Your task to perform on an android device: Show me productivity apps on the Play Store Image 0: 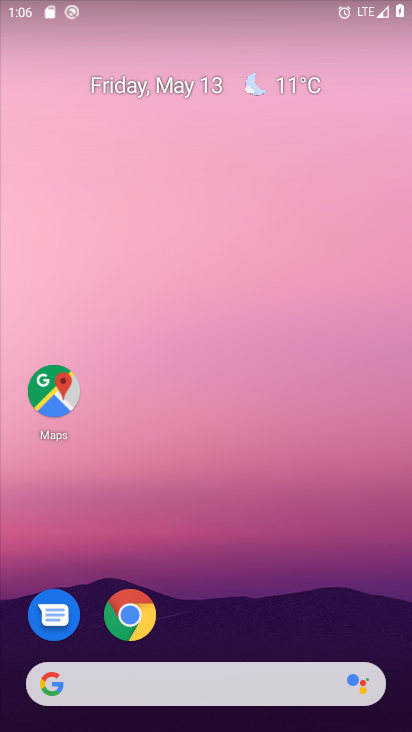
Step 0: drag from (276, 612) to (306, 47)
Your task to perform on an android device: Show me productivity apps on the Play Store Image 1: 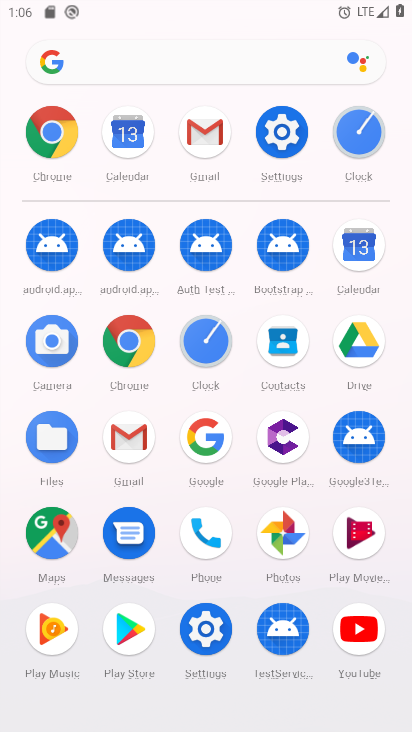
Step 1: click (131, 609)
Your task to perform on an android device: Show me productivity apps on the Play Store Image 2: 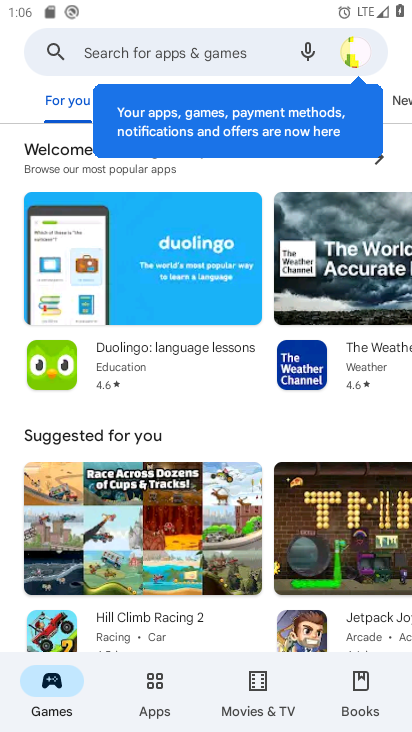
Step 2: click (150, 696)
Your task to perform on an android device: Show me productivity apps on the Play Store Image 3: 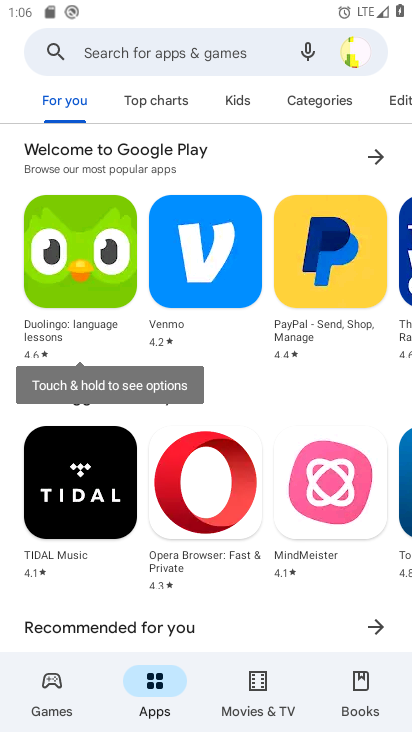
Step 3: click (343, 88)
Your task to perform on an android device: Show me productivity apps on the Play Store Image 4: 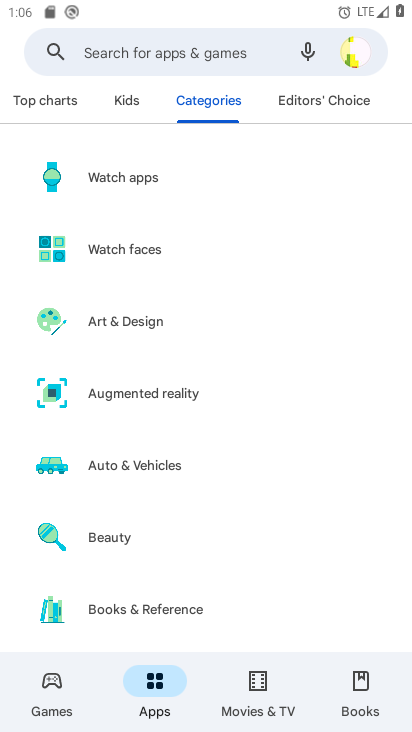
Step 4: drag from (248, 544) to (290, 0)
Your task to perform on an android device: Show me productivity apps on the Play Store Image 5: 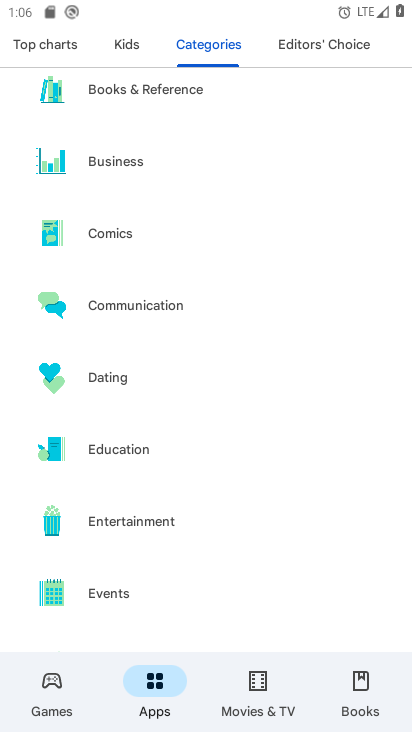
Step 5: drag from (217, 609) to (276, 0)
Your task to perform on an android device: Show me productivity apps on the Play Store Image 6: 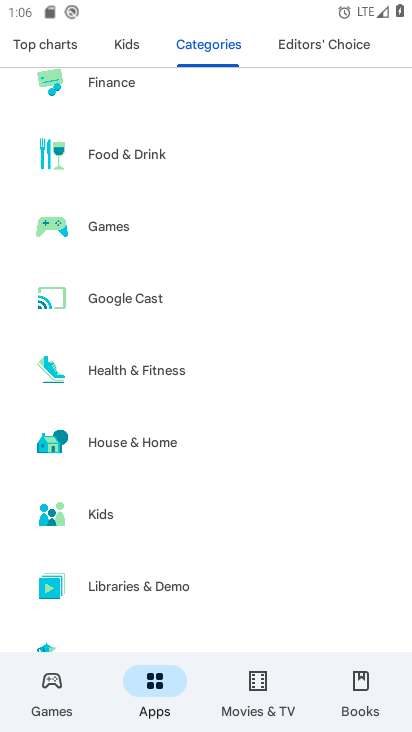
Step 6: drag from (238, 587) to (283, 7)
Your task to perform on an android device: Show me productivity apps on the Play Store Image 7: 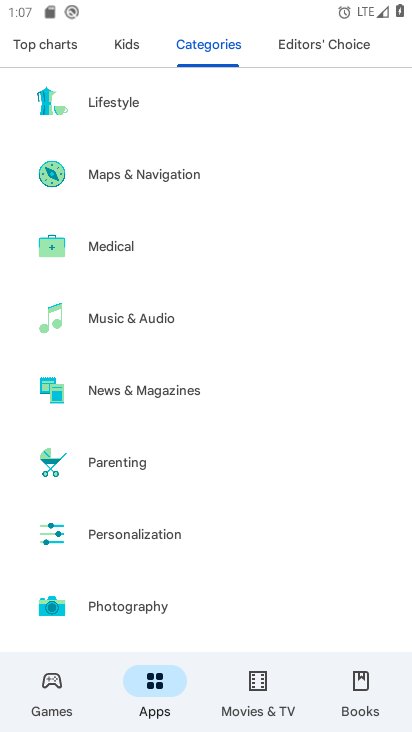
Step 7: drag from (229, 562) to (237, 240)
Your task to perform on an android device: Show me productivity apps on the Play Store Image 8: 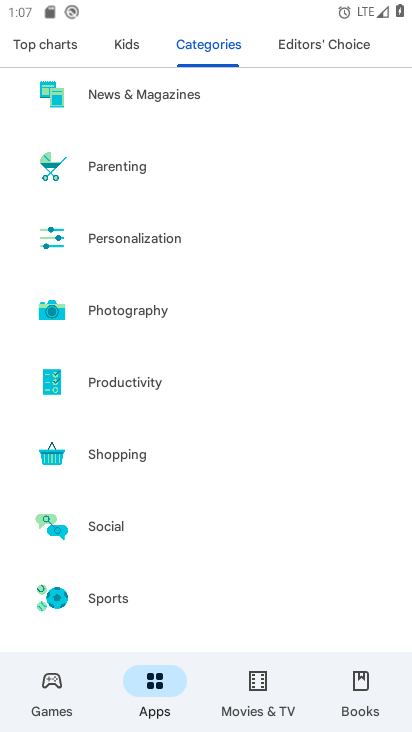
Step 8: click (134, 375)
Your task to perform on an android device: Show me productivity apps on the Play Store Image 9: 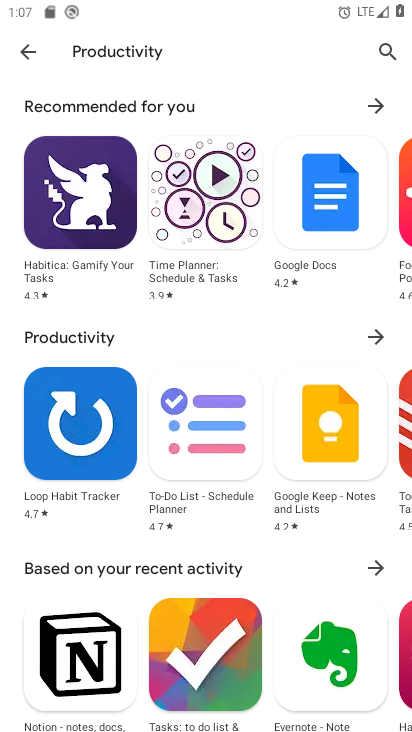
Step 9: click (380, 333)
Your task to perform on an android device: Show me productivity apps on the Play Store Image 10: 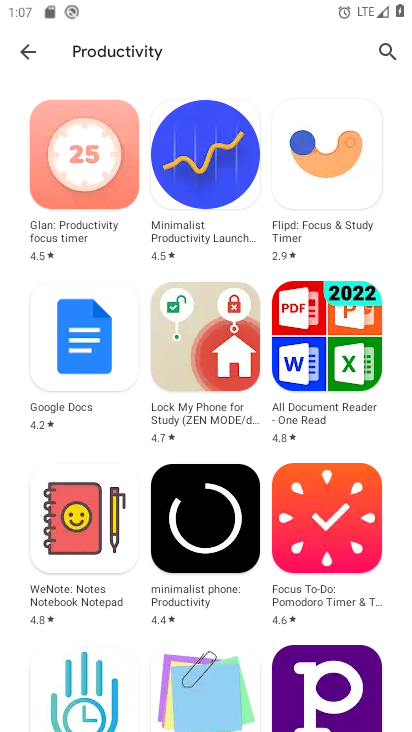
Step 10: task complete